Your task to perform on an android device: change the upload size in google photos Image 0: 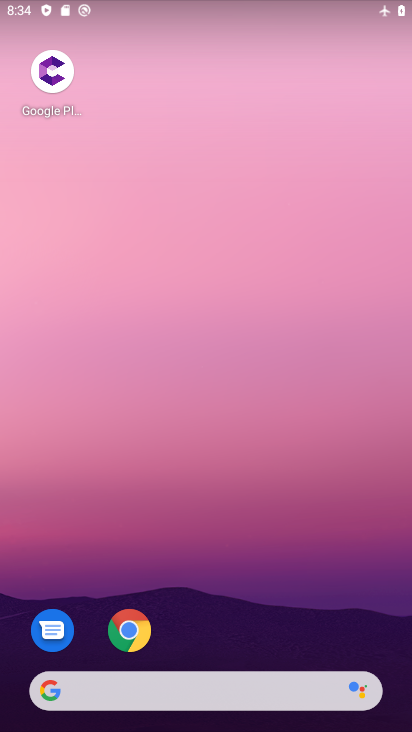
Step 0: drag from (384, 627) to (316, 85)
Your task to perform on an android device: change the upload size in google photos Image 1: 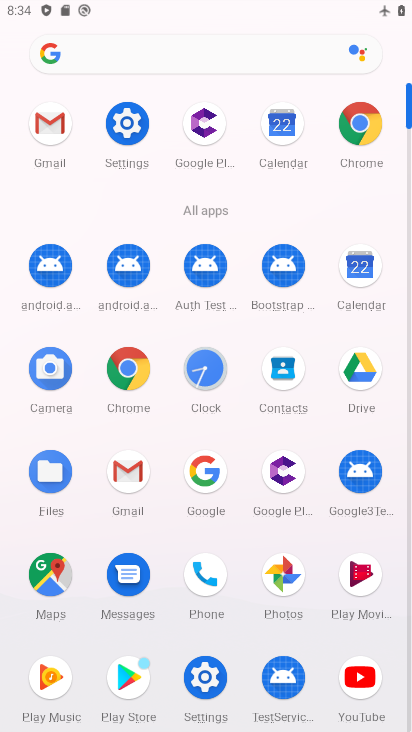
Step 1: click (270, 571)
Your task to perform on an android device: change the upload size in google photos Image 2: 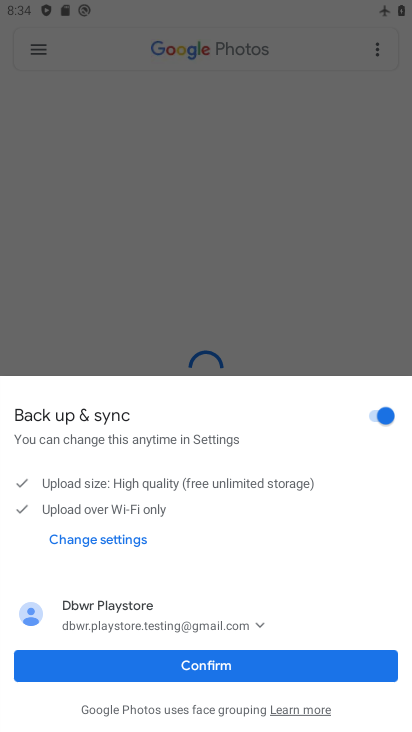
Step 2: click (241, 672)
Your task to perform on an android device: change the upload size in google photos Image 3: 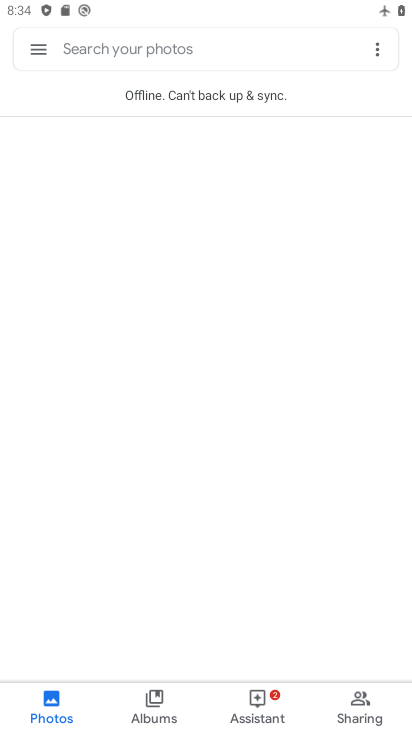
Step 3: click (29, 49)
Your task to perform on an android device: change the upload size in google photos Image 4: 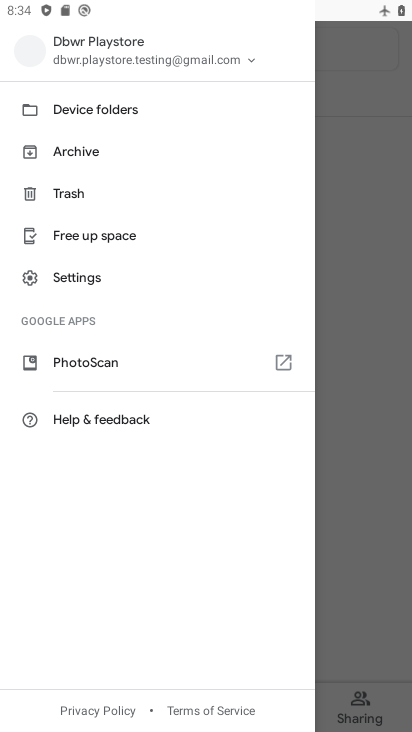
Step 4: click (52, 272)
Your task to perform on an android device: change the upload size in google photos Image 5: 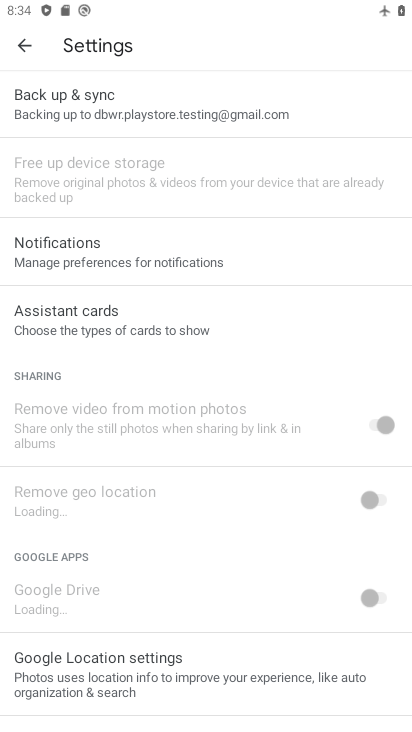
Step 5: click (61, 108)
Your task to perform on an android device: change the upload size in google photos Image 6: 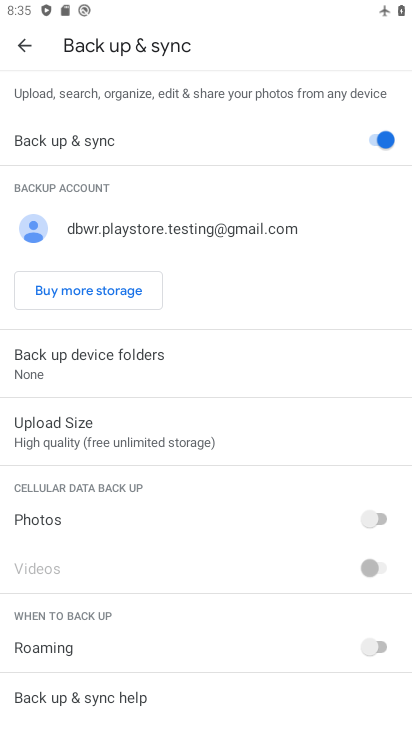
Step 6: click (72, 439)
Your task to perform on an android device: change the upload size in google photos Image 7: 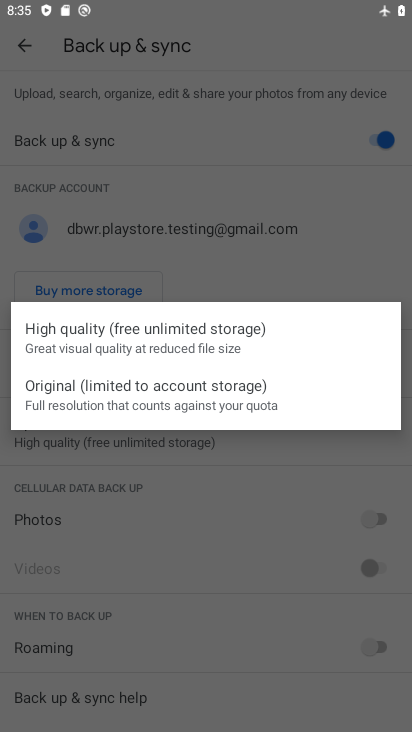
Step 7: click (76, 397)
Your task to perform on an android device: change the upload size in google photos Image 8: 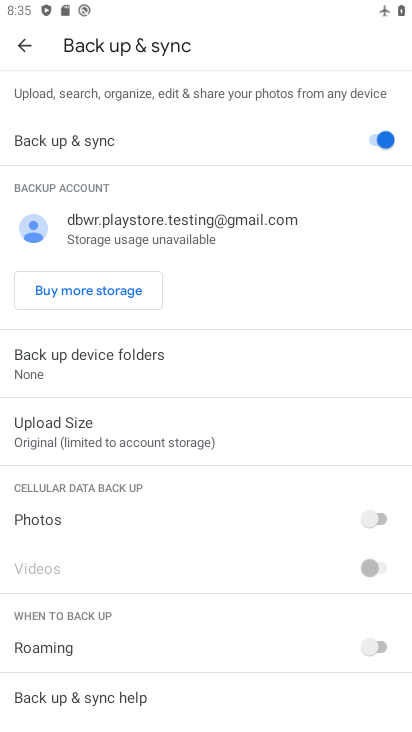
Step 8: task complete